Your task to perform on an android device: open app "Google Chat" Image 0: 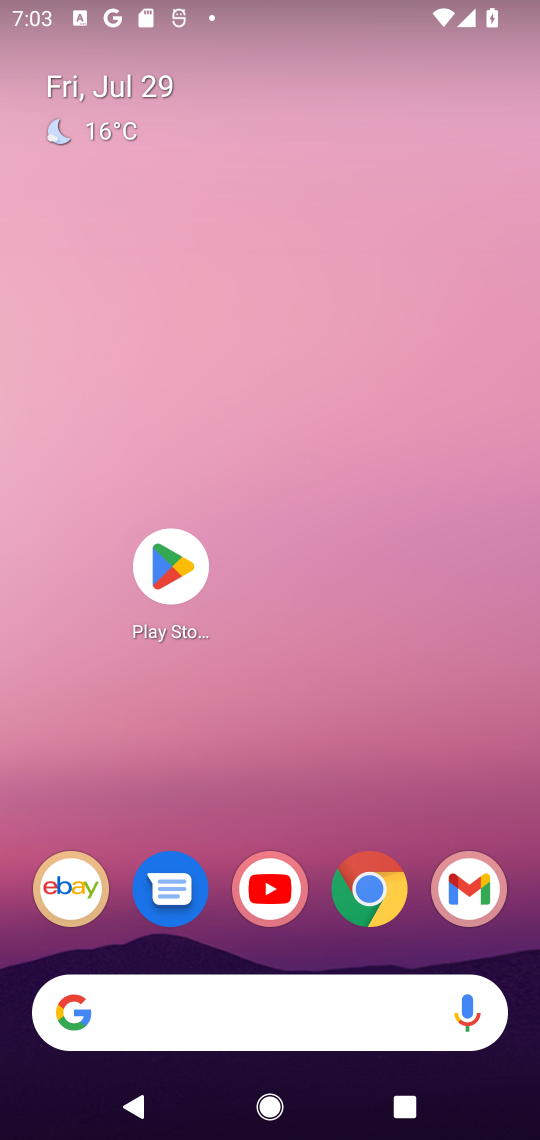
Step 0: press home button
Your task to perform on an android device: open app "Google Chat" Image 1: 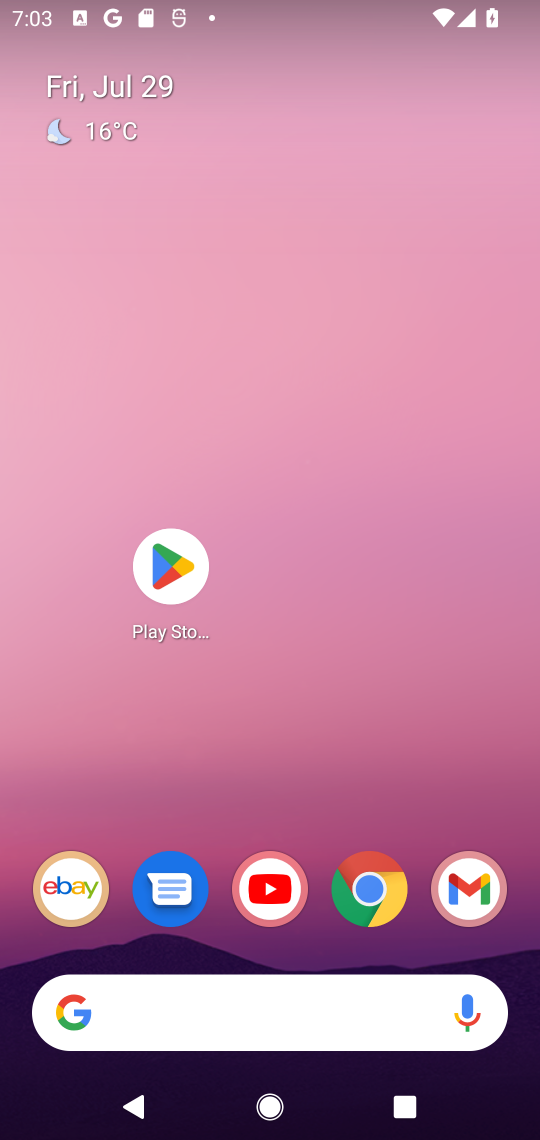
Step 1: click (178, 568)
Your task to perform on an android device: open app "Google Chat" Image 2: 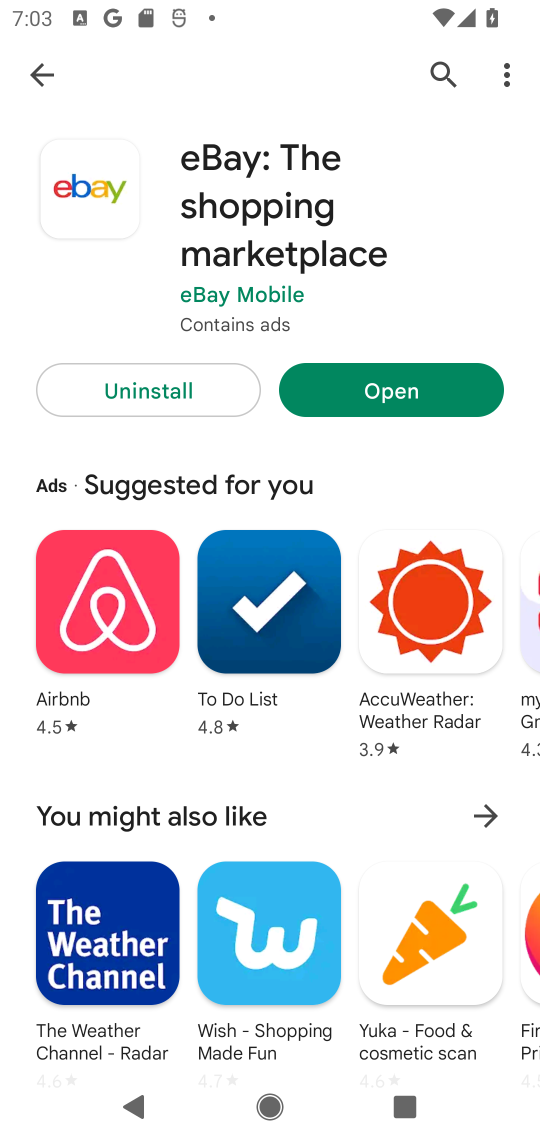
Step 2: click (436, 65)
Your task to perform on an android device: open app "Google Chat" Image 3: 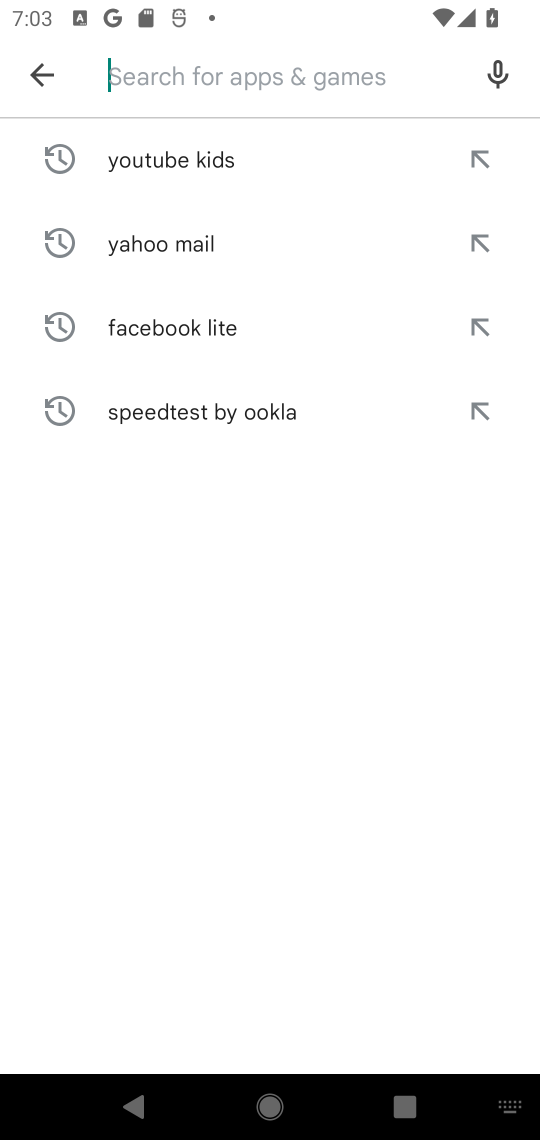
Step 3: type "Google Chat"
Your task to perform on an android device: open app "Google Chat" Image 4: 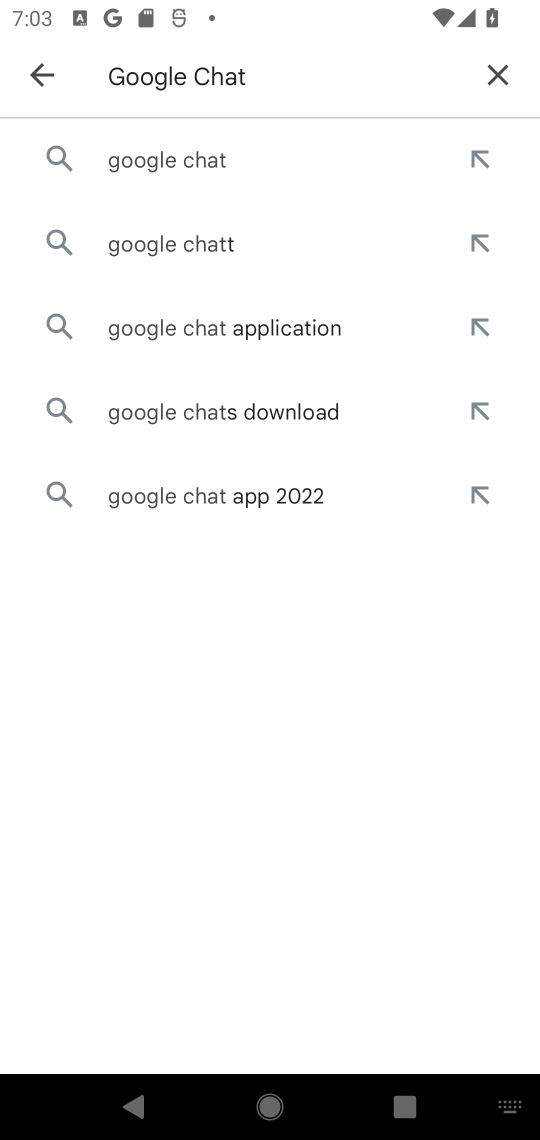
Step 4: click (196, 152)
Your task to perform on an android device: open app "Google Chat" Image 5: 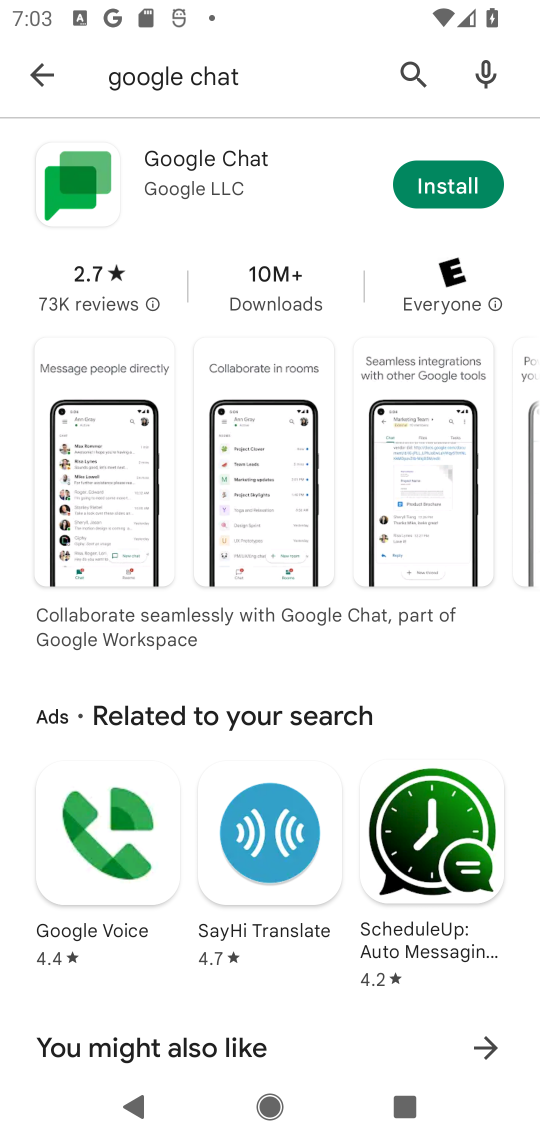
Step 5: task complete